Your task to perform on an android device: Do I have any events this weekend? Image 0: 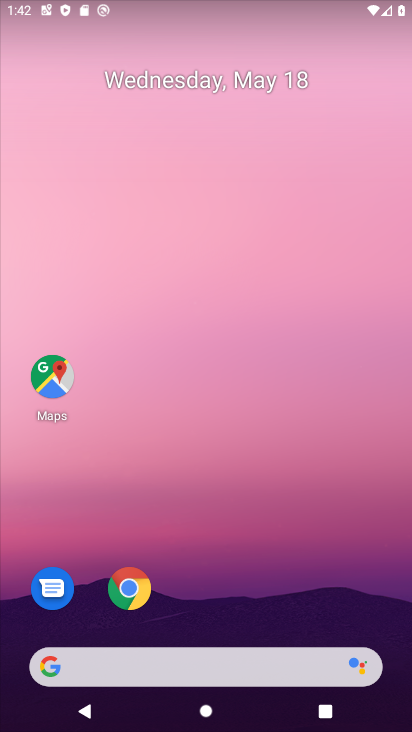
Step 0: drag from (324, 578) to (335, 134)
Your task to perform on an android device: Do I have any events this weekend? Image 1: 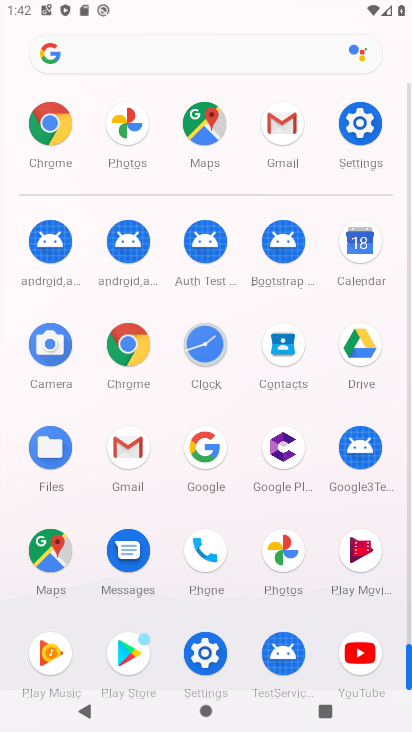
Step 1: click (362, 234)
Your task to perform on an android device: Do I have any events this weekend? Image 2: 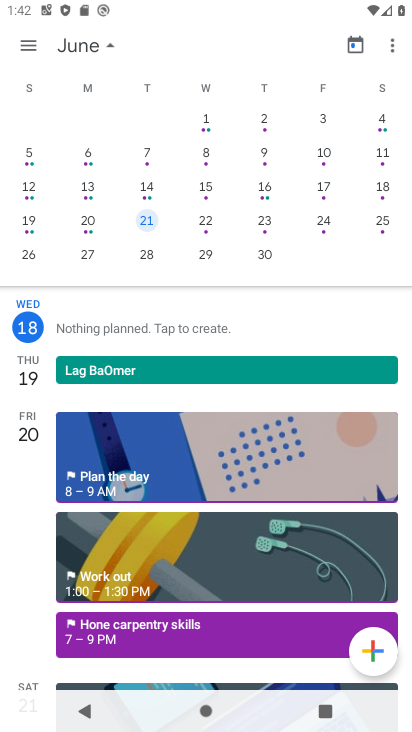
Step 2: drag from (295, 517) to (307, 318)
Your task to perform on an android device: Do I have any events this weekend? Image 3: 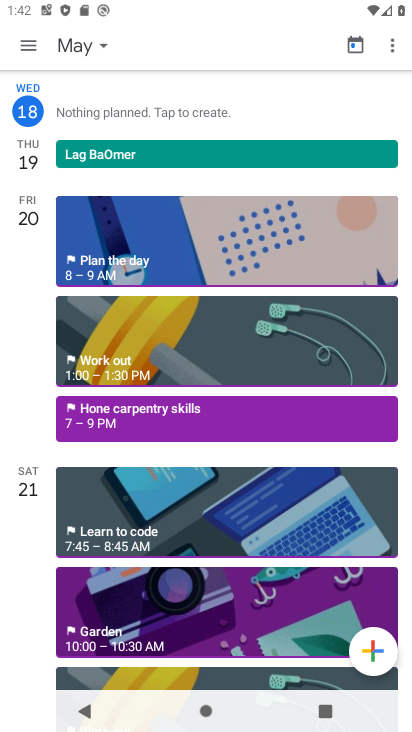
Step 3: drag from (267, 522) to (259, 288)
Your task to perform on an android device: Do I have any events this weekend? Image 4: 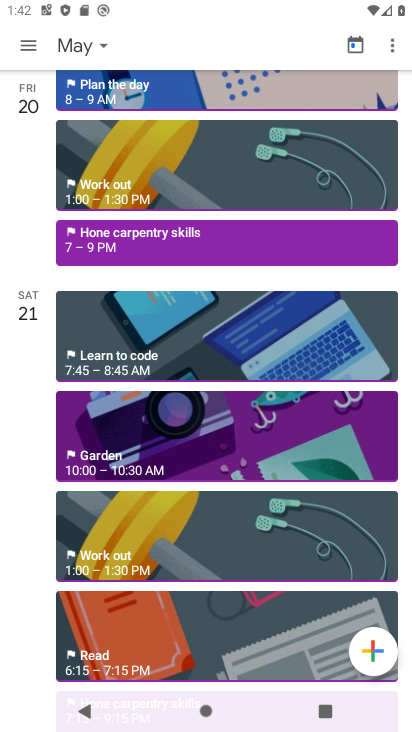
Step 4: click (262, 334)
Your task to perform on an android device: Do I have any events this weekend? Image 5: 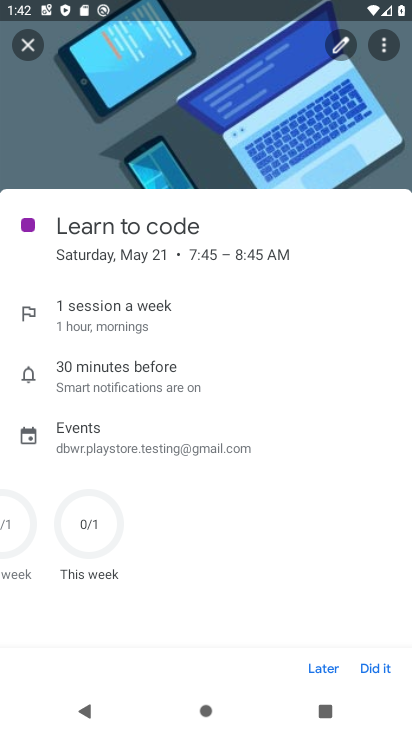
Step 5: task complete